Your task to perform on an android device: Open Chrome and go to settings Image 0: 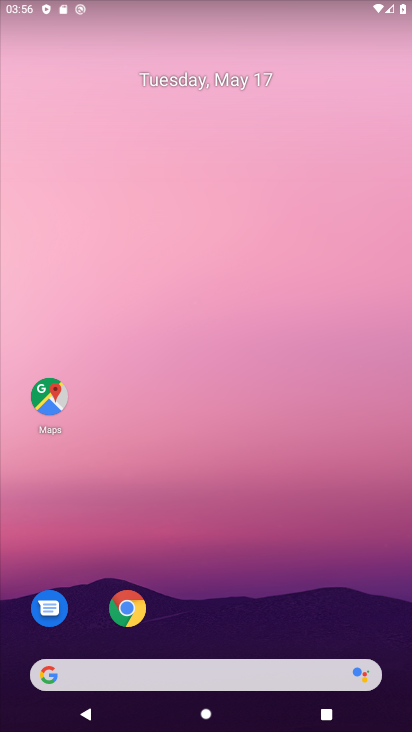
Step 0: click (120, 607)
Your task to perform on an android device: Open Chrome and go to settings Image 1: 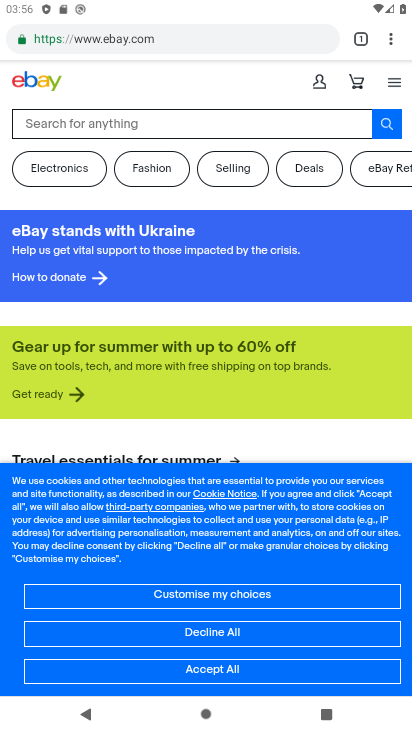
Step 1: click (385, 35)
Your task to perform on an android device: Open Chrome and go to settings Image 2: 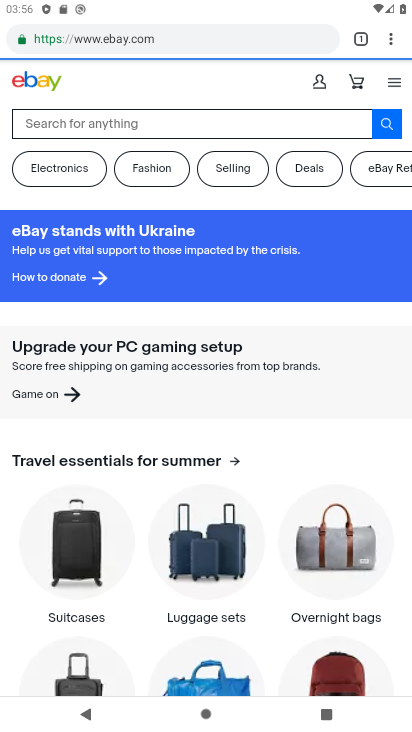
Step 2: click (388, 40)
Your task to perform on an android device: Open Chrome and go to settings Image 3: 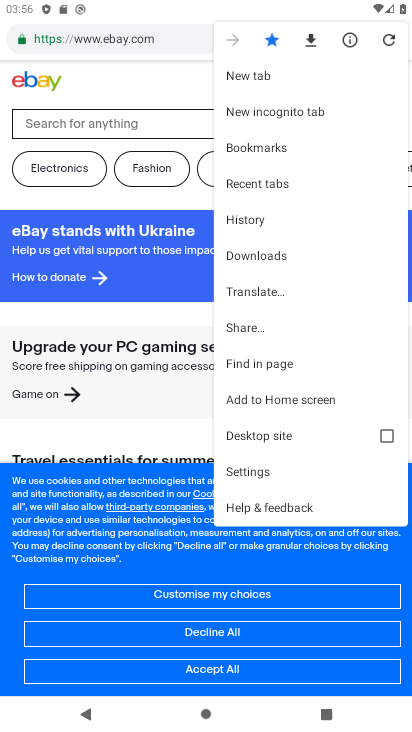
Step 3: click (233, 473)
Your task to perform on an android device: Open Chrome and go to settings Image 4: 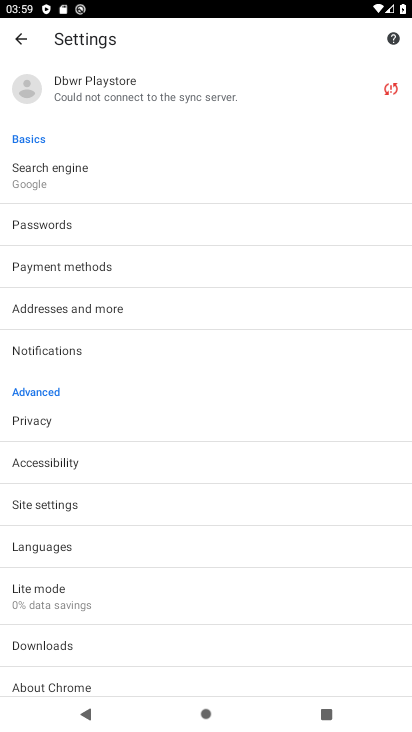
Step 4: task complete